Your task to perform on an android device: Search for "logitech g903" on walmart.com, select the first entry, and add it to the cart. Image 0: 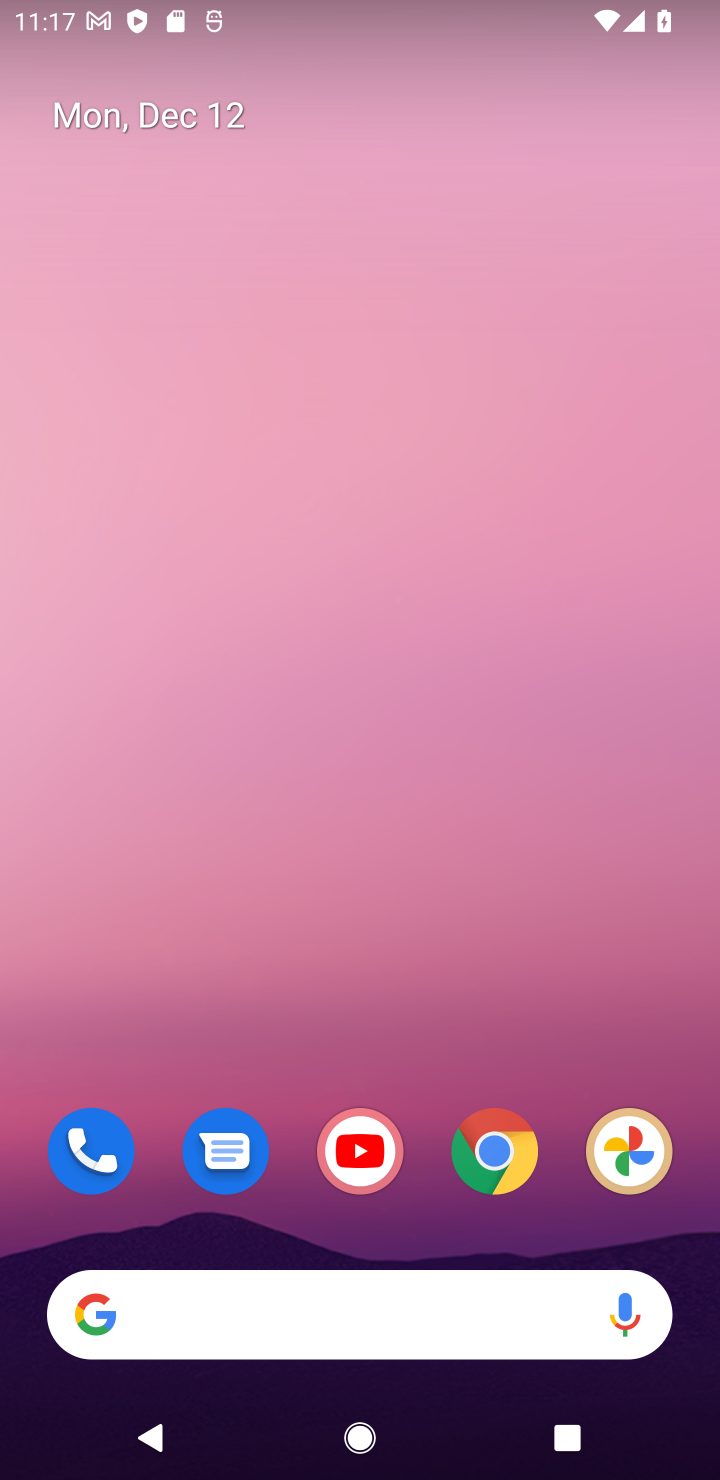
Step 0: drag from (298, 1277) to (306, 268)
Your task to perform on an android device: Search for "logitech g903" on walmart.com, select the first entry, and add it to the cart. Image 1: 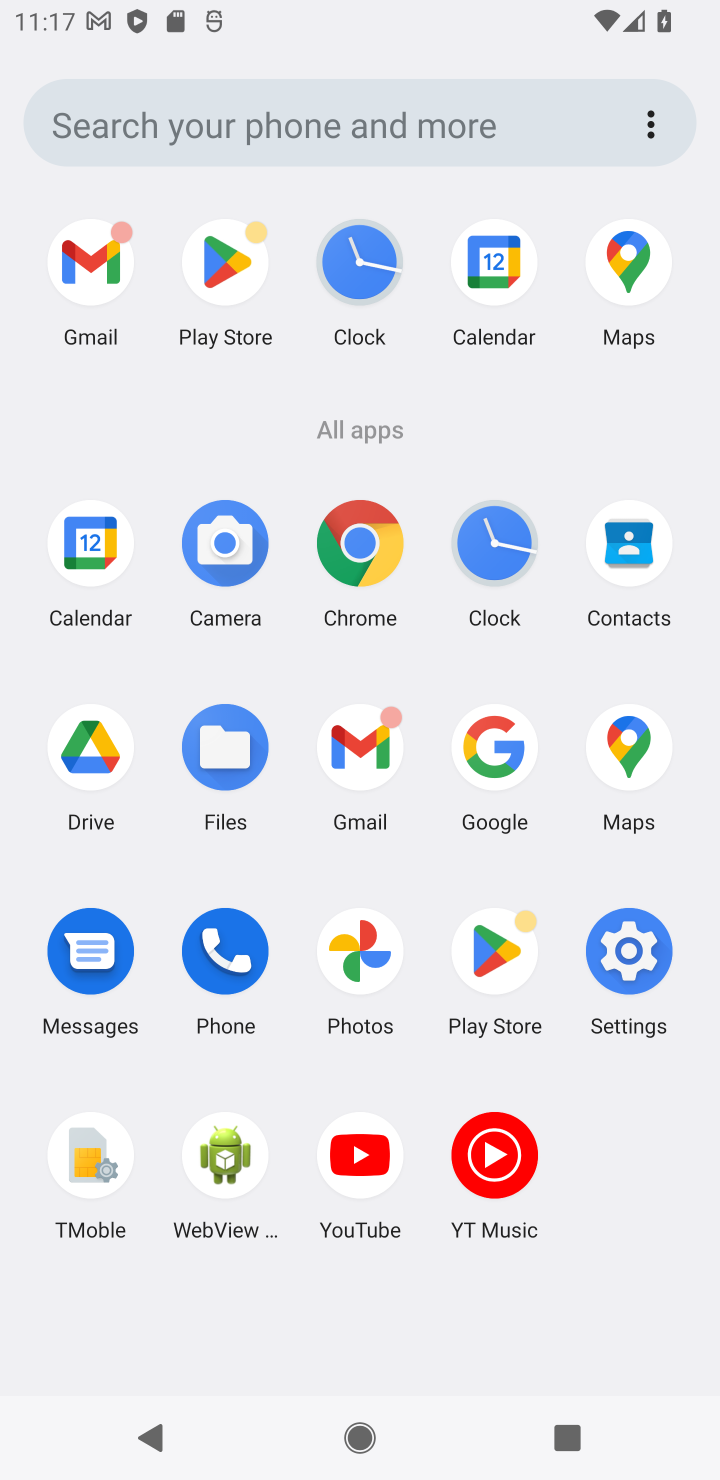
Step 1: click (499, 758)
Your task to perform on an android device: Search for "logitech g903" on walmart.com, select the first entry, and add it to the cart. Image 2: 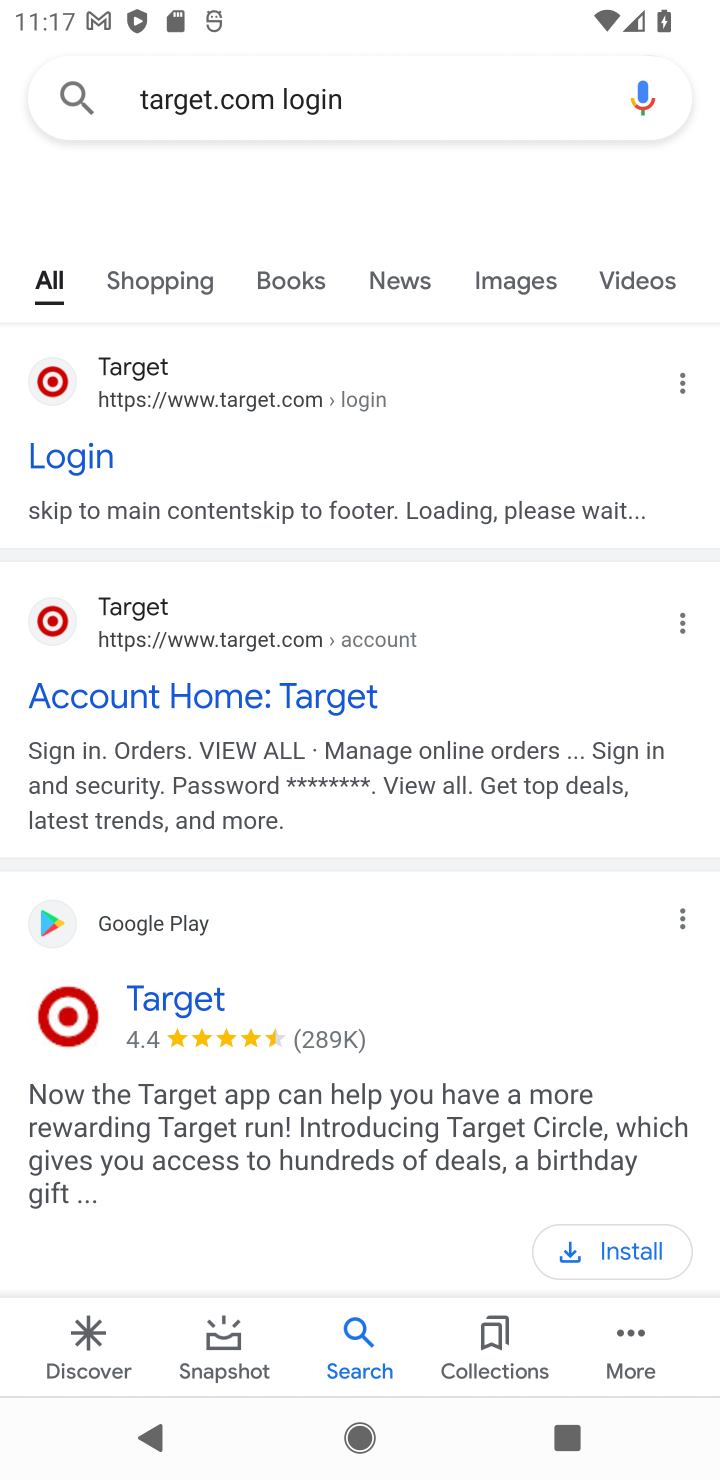
Step 2: click (235, 117)
Your task to perform on an android device: Search for "logitech g903" on walmart.com, select the first entry, and add it to the cart. Image 3: 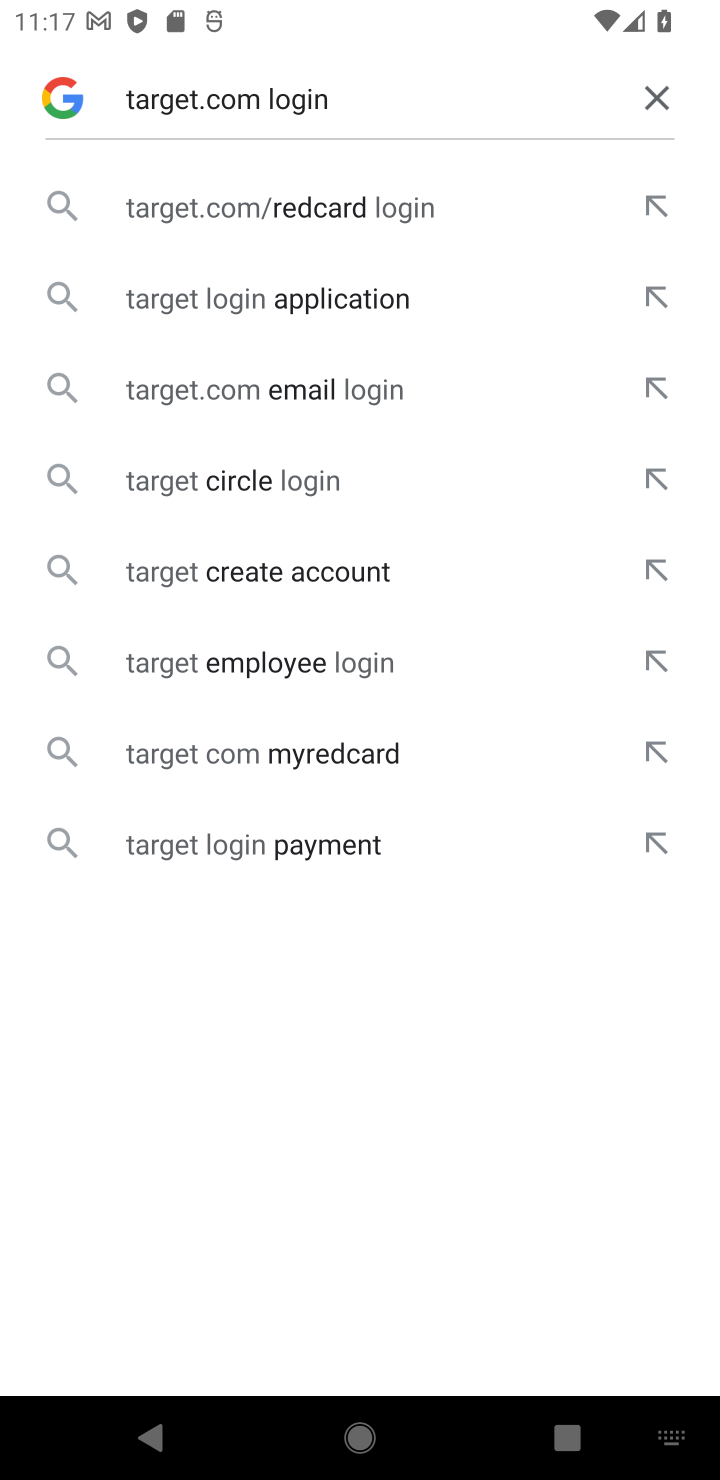
Step 3: click (661, 105)
Your task to perform on an android device: Search for "logitech g903" on walmart.com, select the first entry, and add it to the cart. Image 4: 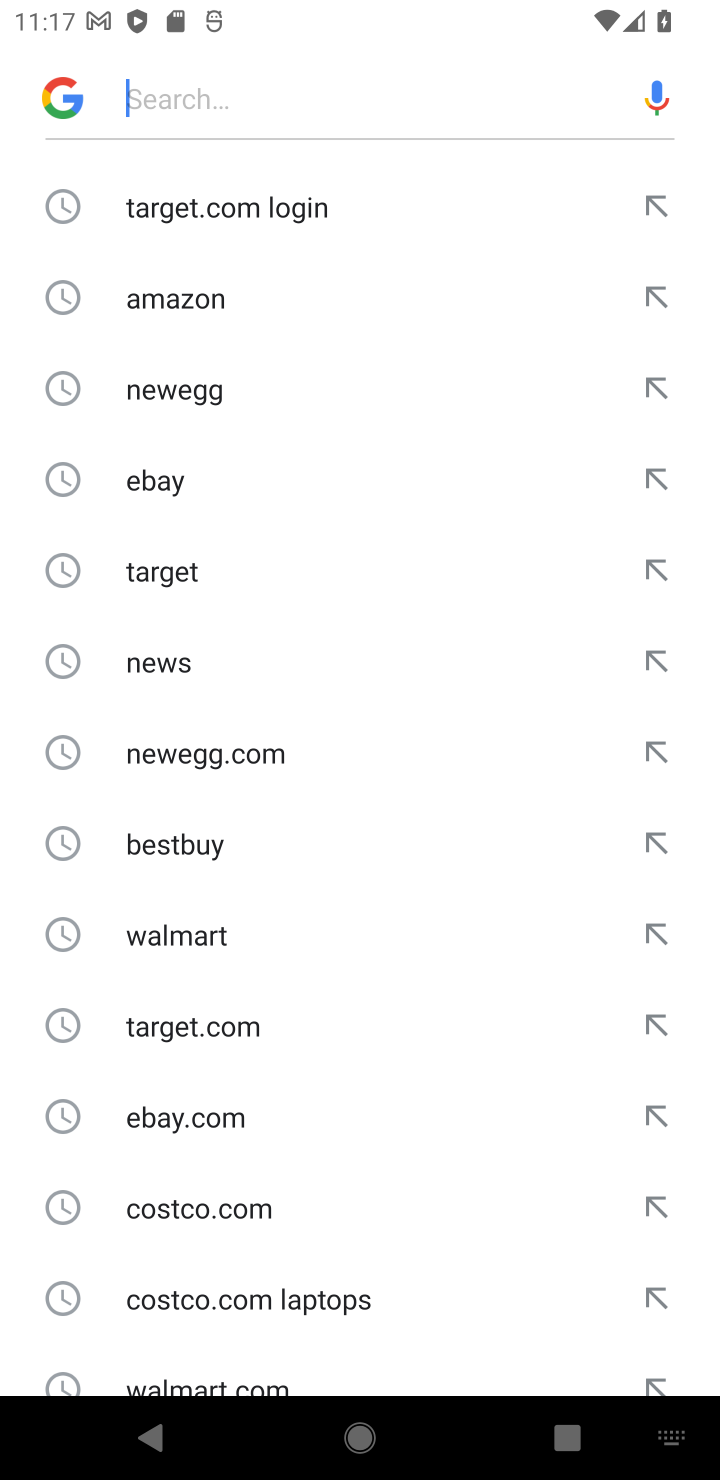
Step 4: click (176, 935)
Your task to perform on an android device: Search for "logitech g903" on walmart.com, select the first entry, and add it to the cart. Image 5: 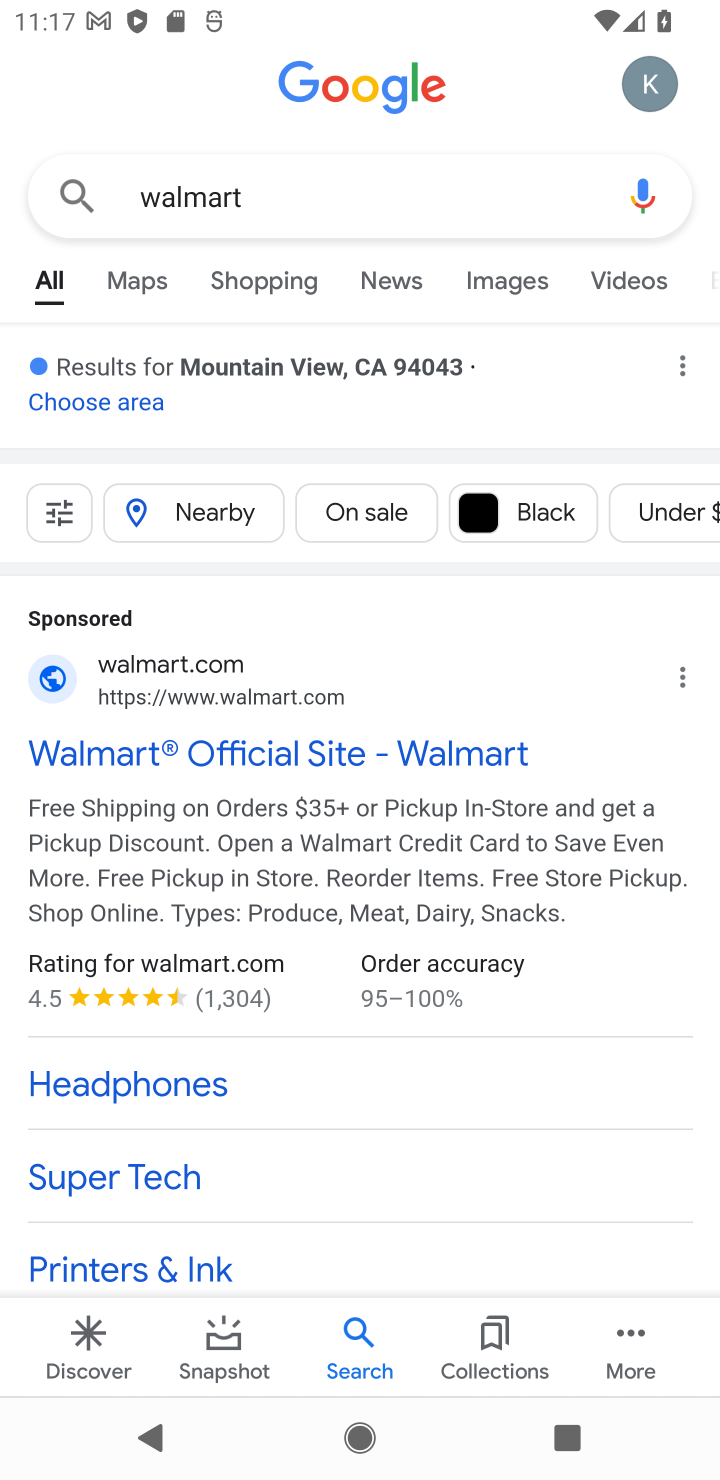
Step 5: click (124, 740)
Your task to perform on an android device: Search for "logitech g903" on walmart.com, select the first entry, and add it to the cart. Image 6: 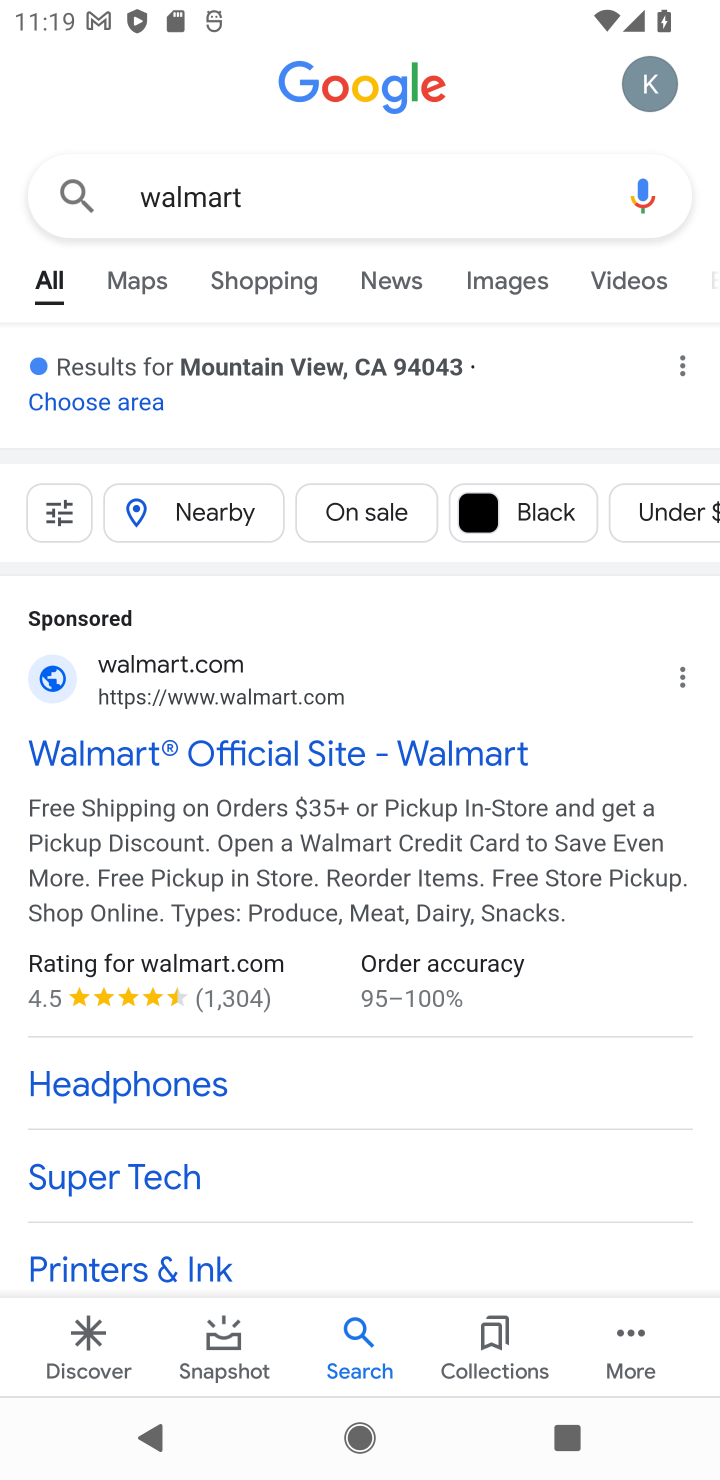
Step 6: click (270, 741)
Your task to perform on an android device: Search for "logitech g903" on walmart.com, select the first entry, and add it to the cart. Image 7: 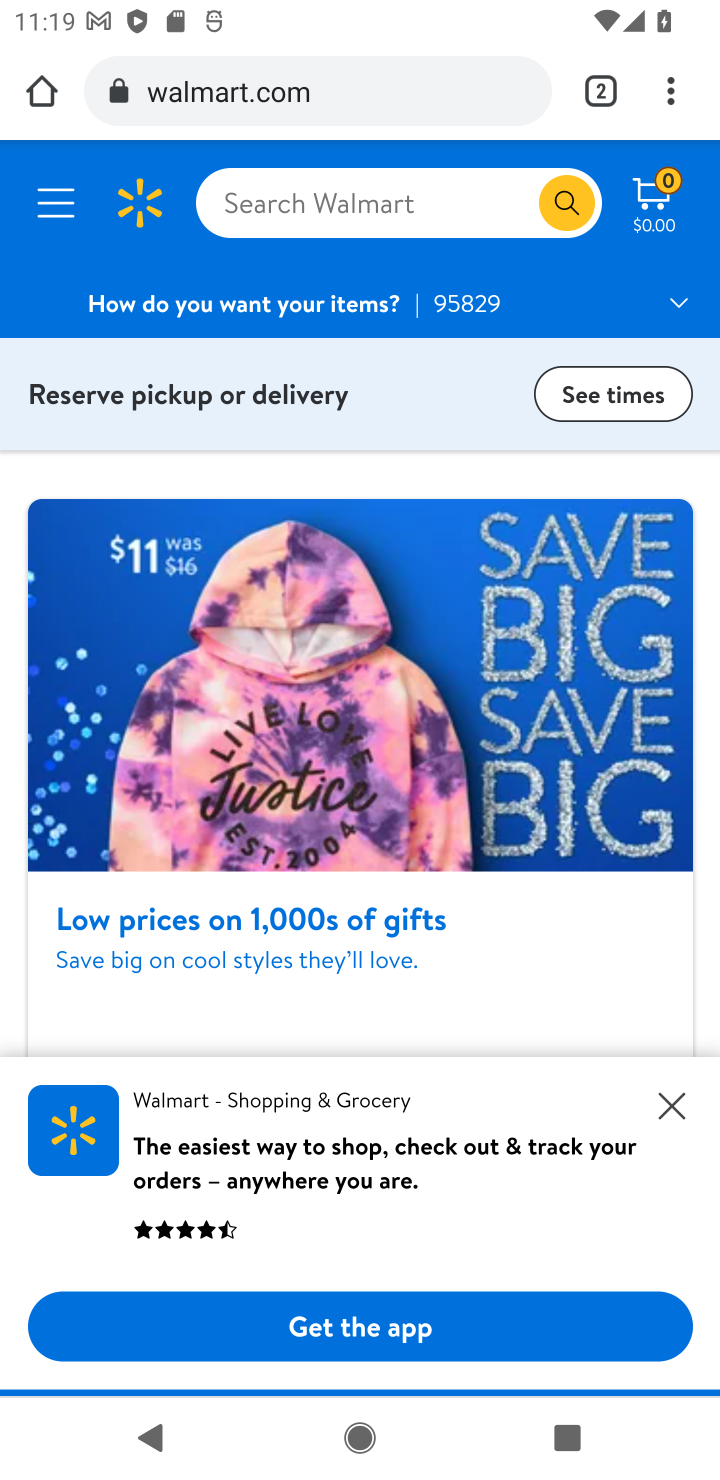
Step 7: click (344, 194)
Your task to perform on an android device: Search for "logitech g903" on walmart.com, select the first entry, and add it to the cart. Image 8: 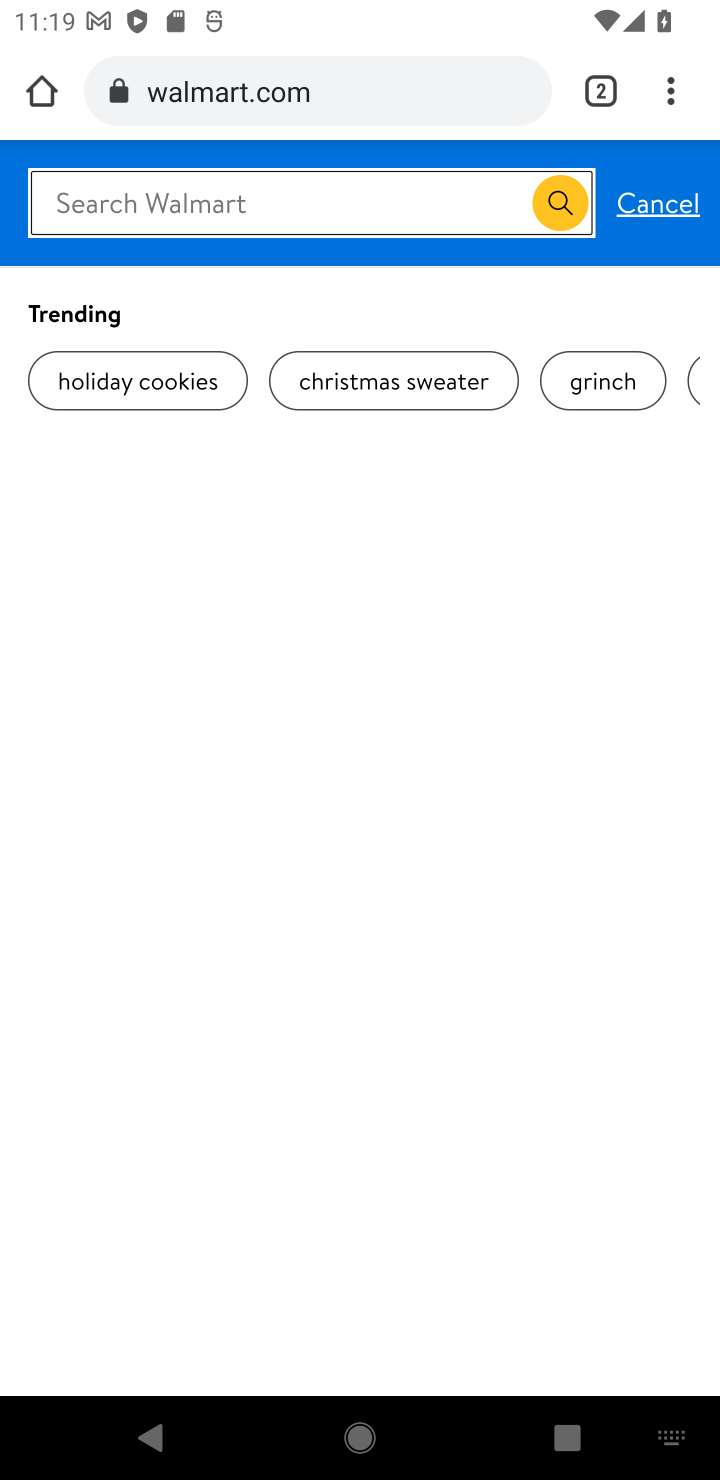
Step 8: type "logitech g903"
Your task to perform on an android device: Search for "logitech g903" on walmart.com, select the first entry, and add it to the cart. Image 9: 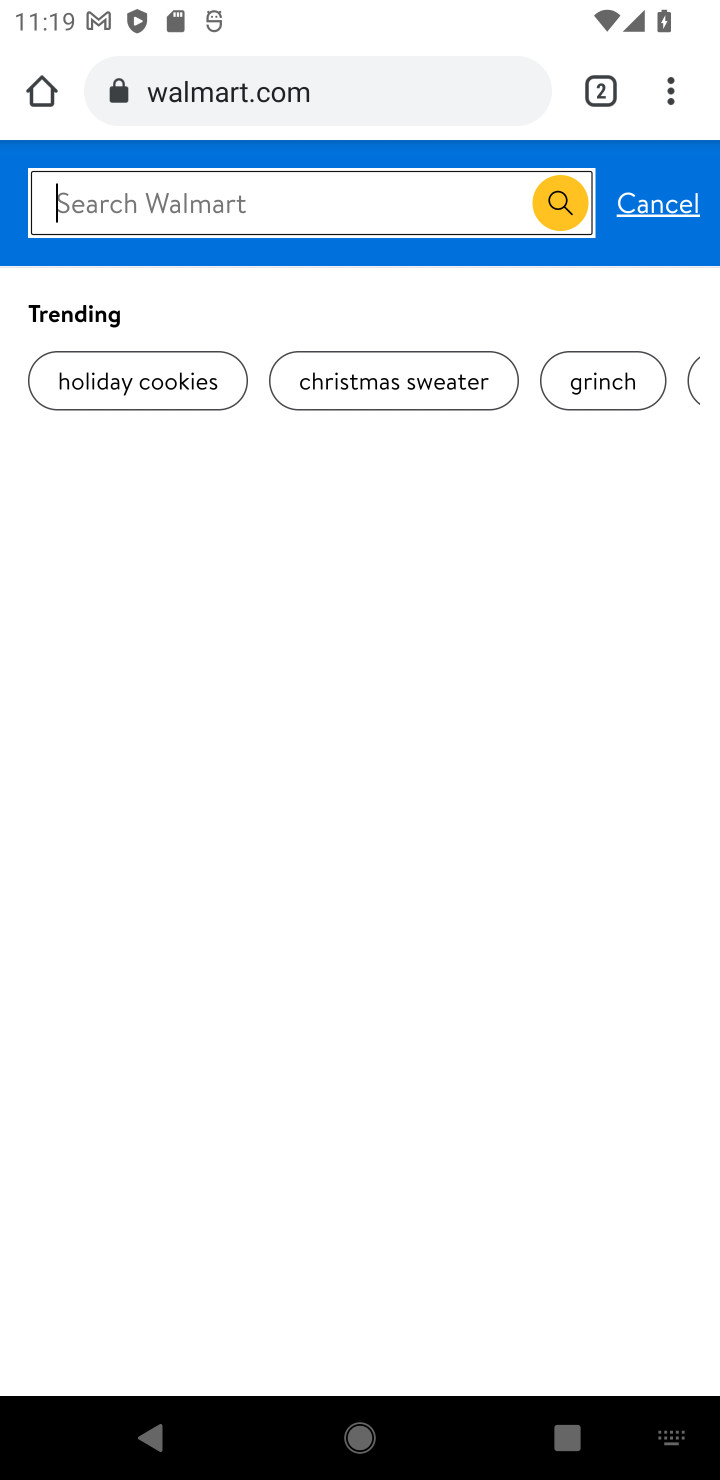
Step 9: click (573, 202)
Your task to perform on an android device: Search for "logitech g903" on walmart.com, select the first entry, and add it to the cart. Image 10: 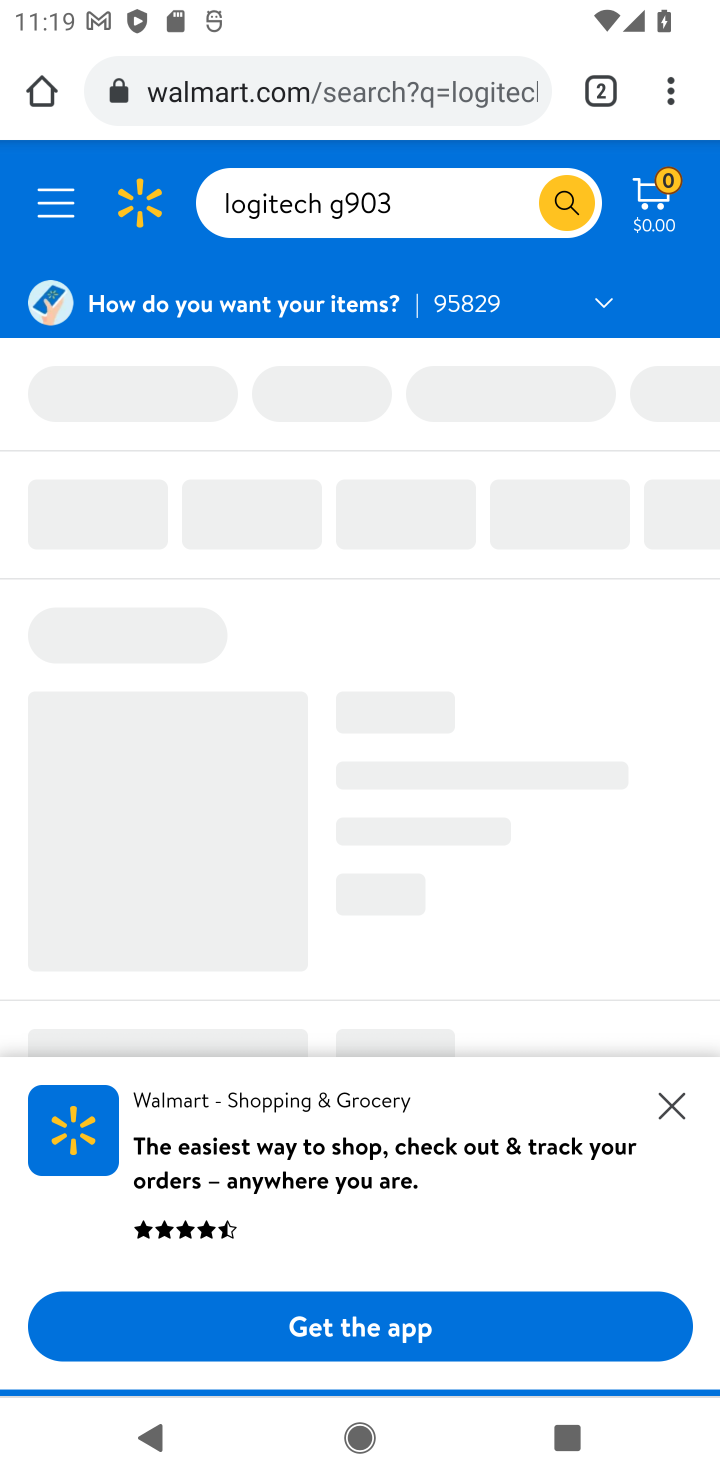
Step 10: click (666, 1106)
Your task to perform on an android device: Search for "logitech g903" on walmart.com, select the first entry, and add it to the cart. Image 11: 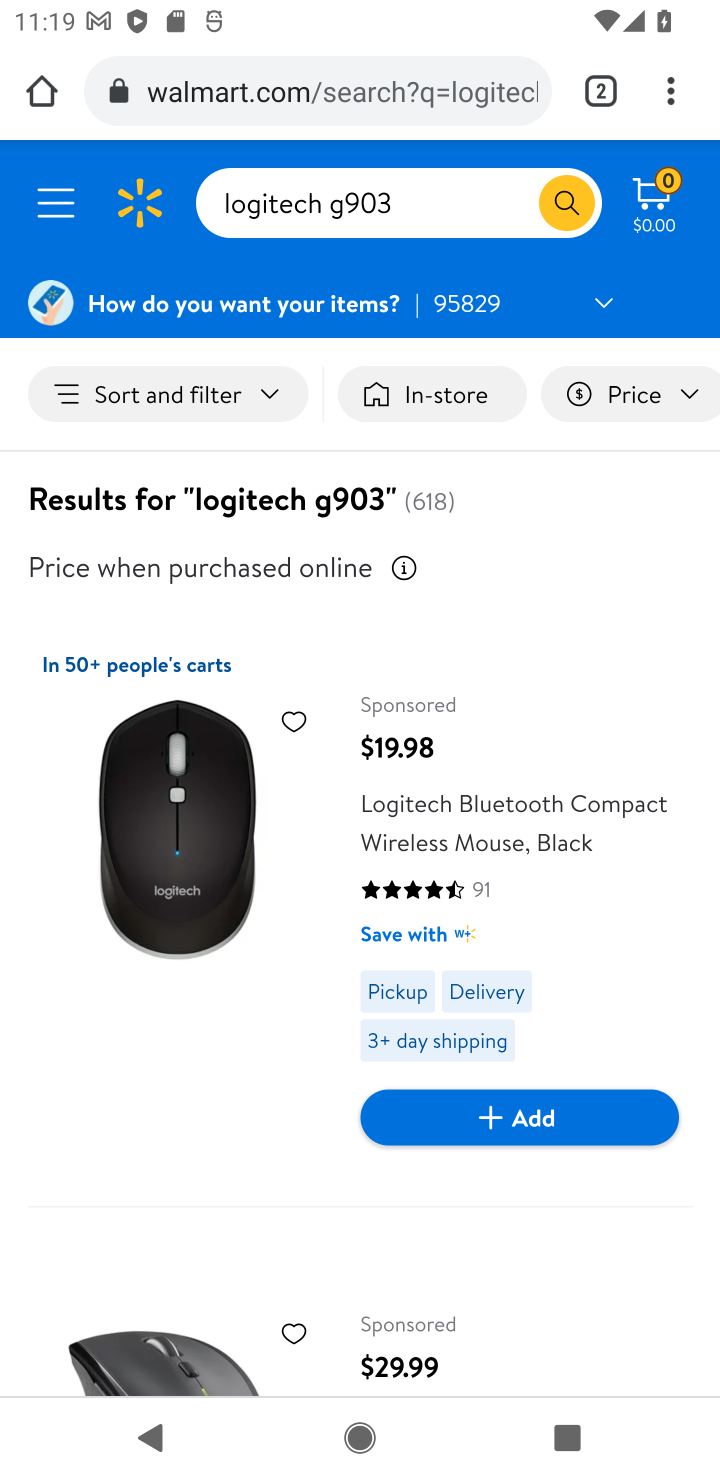
Step 11: click (506, 1110)
Your task to perform on an android device: Search for "logitech g903" on walmart.com, select the first entry, and add it to the cart. Image 12: 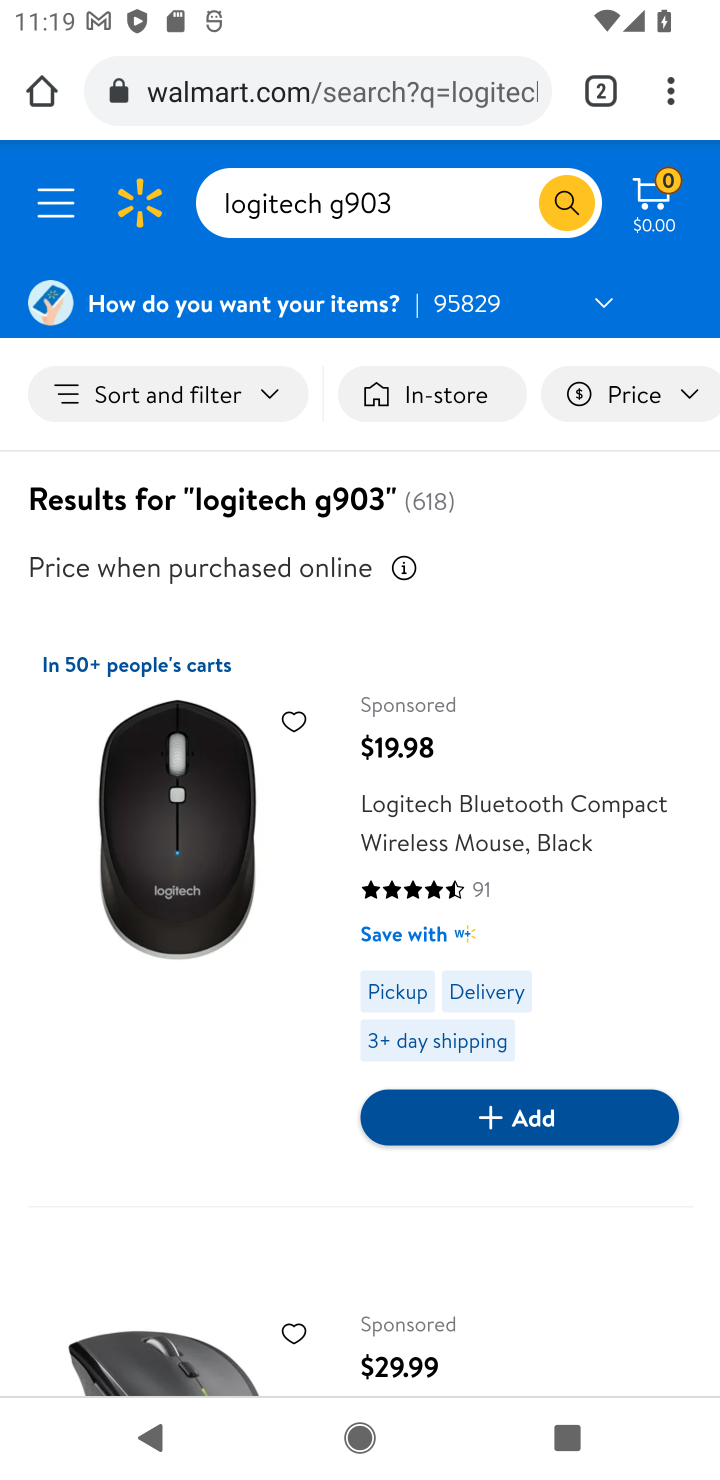
Step 12: click (508, 1117)
Your task to perform on an android device: Search for "logitech g903" on walmart.com, select the first entry, and add it to the cart. Image 13: 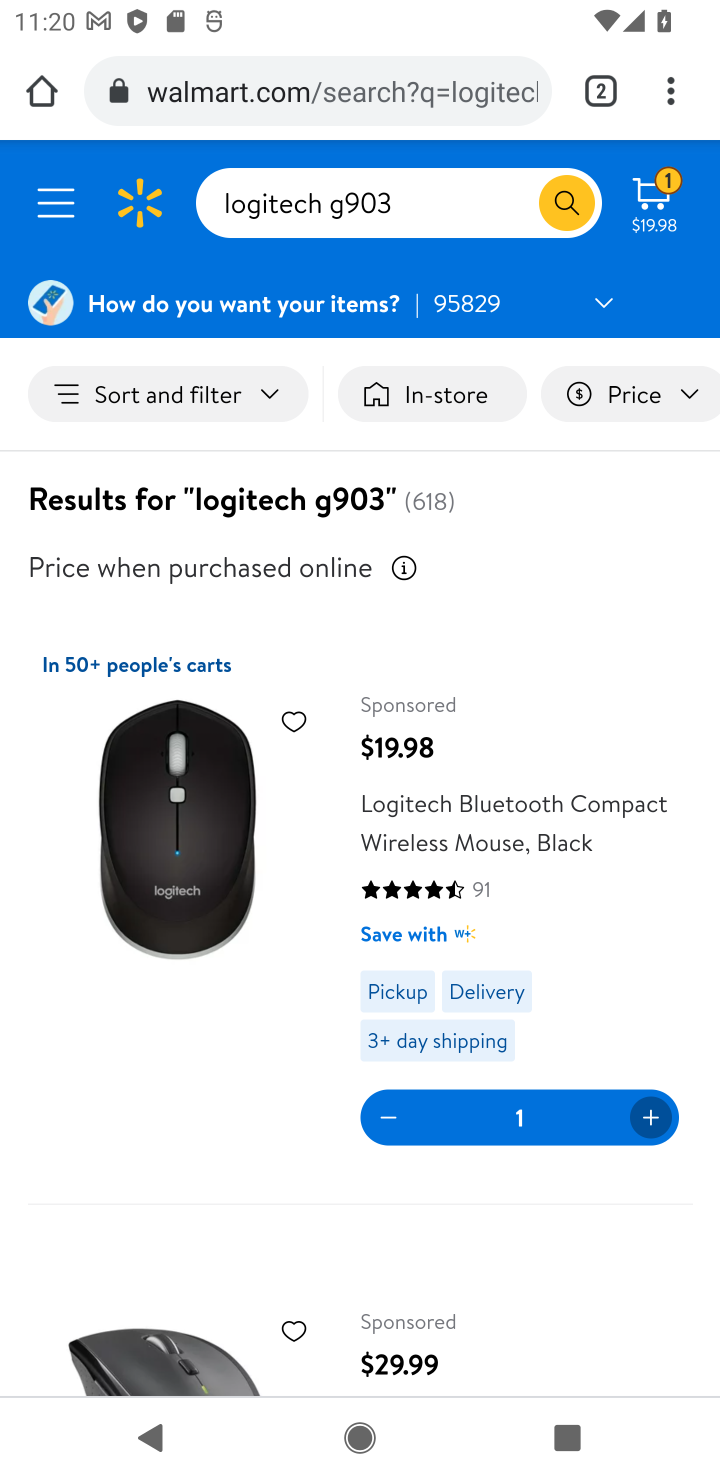
Step 13: task complete